Your task to perform on an android device: Go to display settings Image 0: 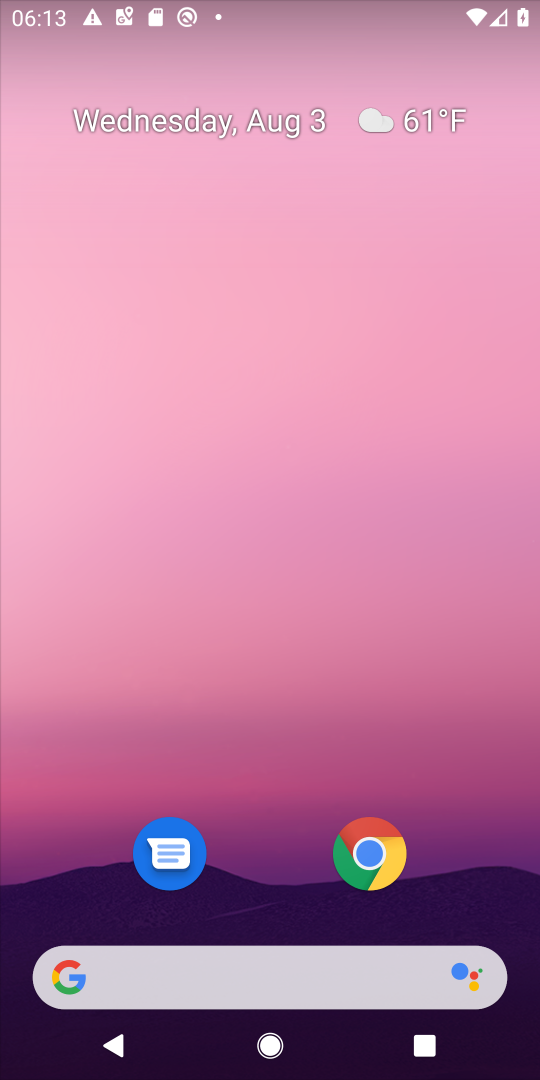
Step 0: click (257, 926)
Your task to perform on an android device: Go to display settings Image 1: 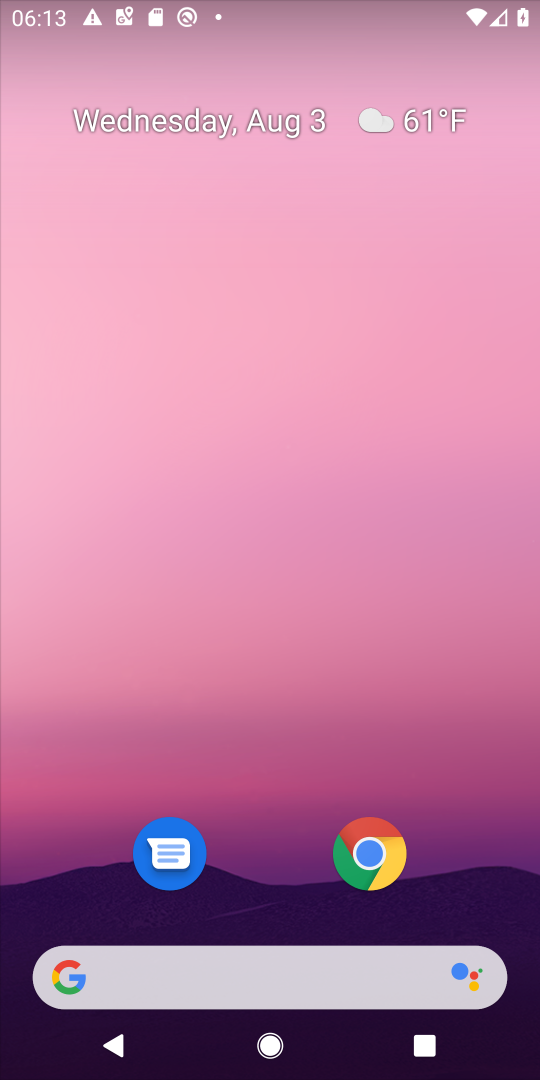
Step 1: click (212, 150)
Your task to perform on an android device: Go to display settings Image 2: 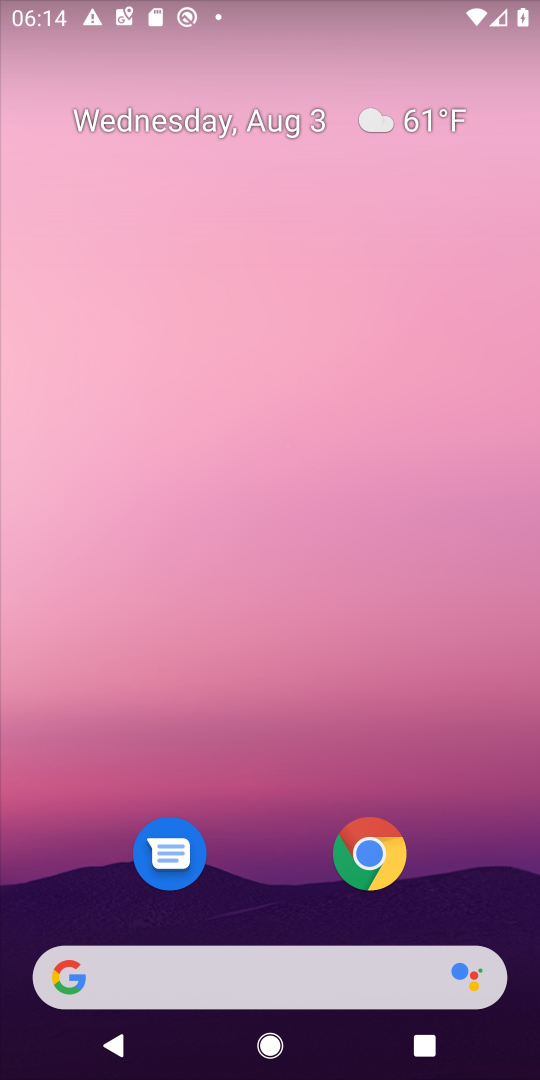
Step 2: drag from (271, 894) to (271, 26)
Your task to perform on an android device: Go to display settings Image 3: 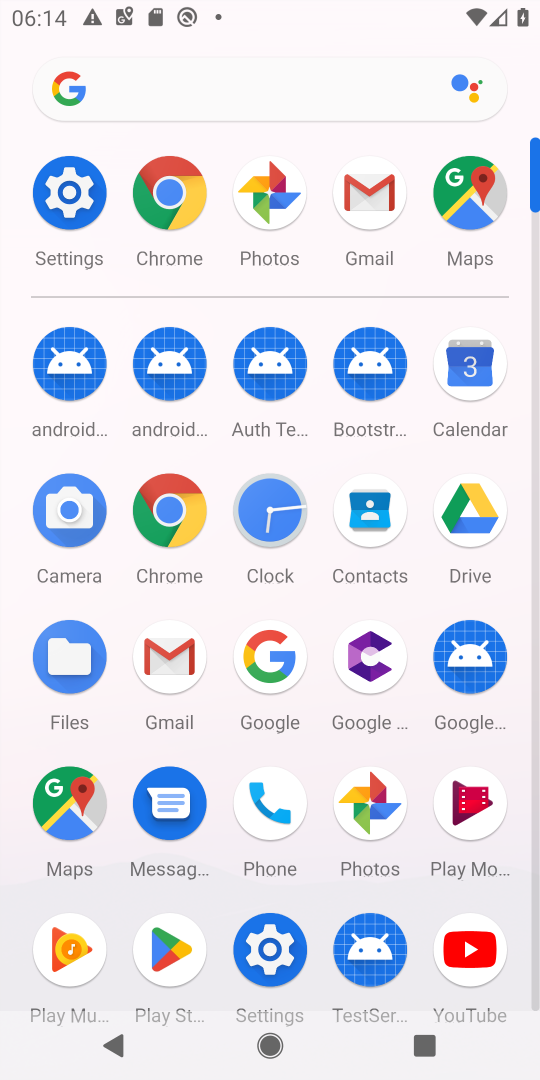
Step 3: click (52, 190)
Your task to perform on an android device: Go to display settings Image 4: 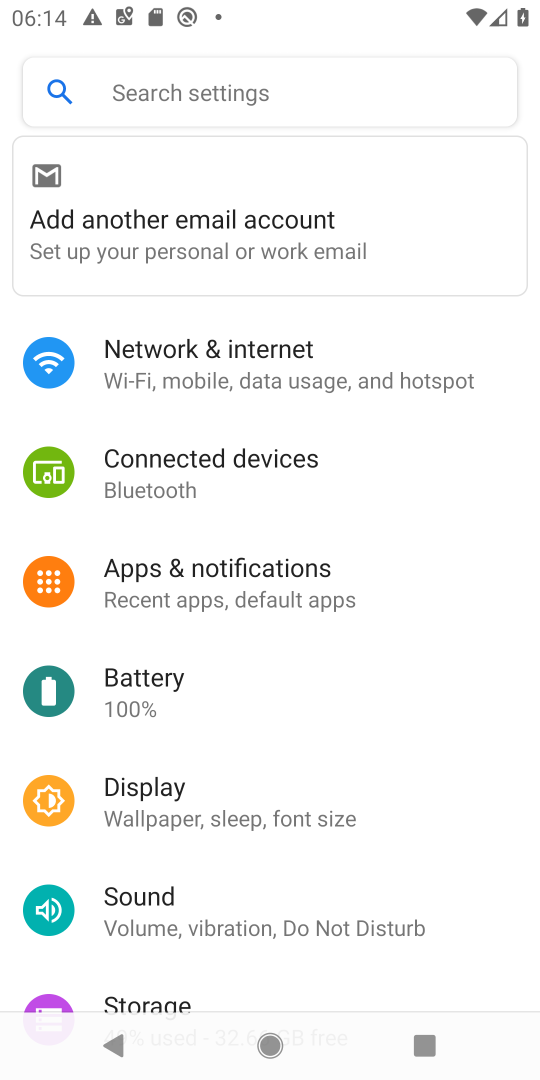
Step 4: click (113, 798)
Your task to perform on an android device: Go to display settings Image 5: 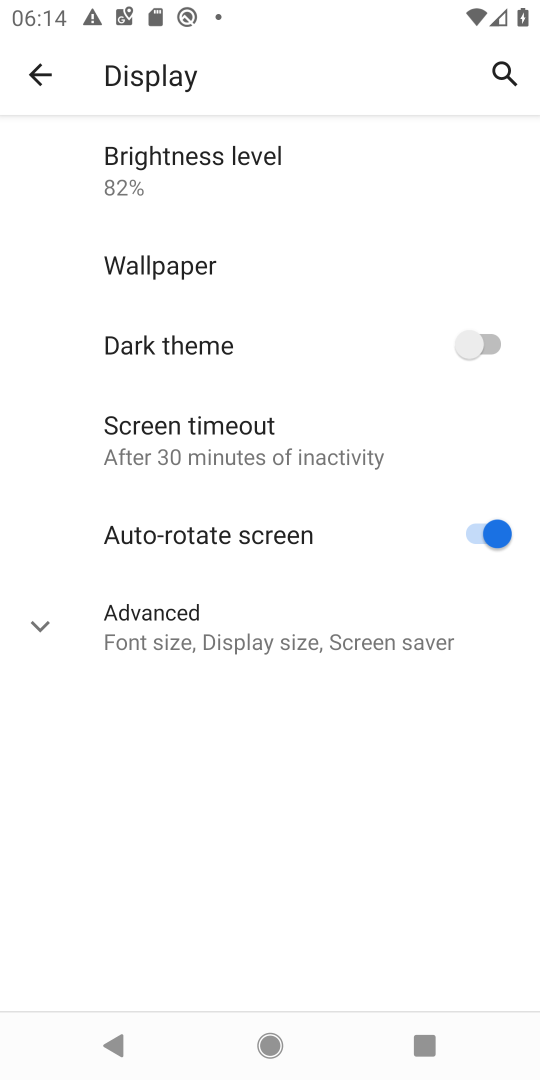
Step 5: task complete